Your task to perform on an android device: check data usage Image 0: 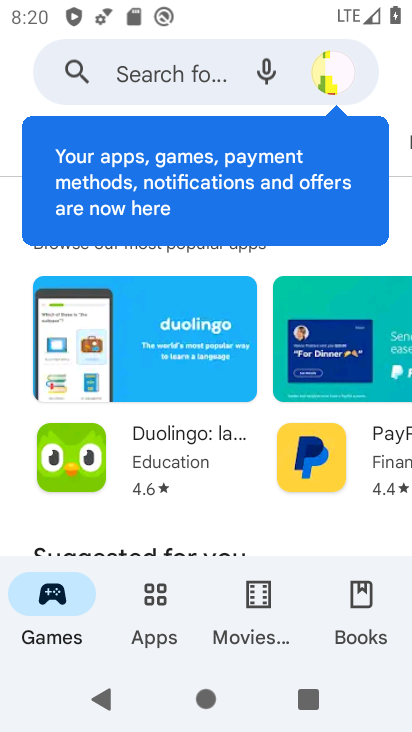
Step 0: press back button
Your task to perform on an android device: check data usage Image 1: 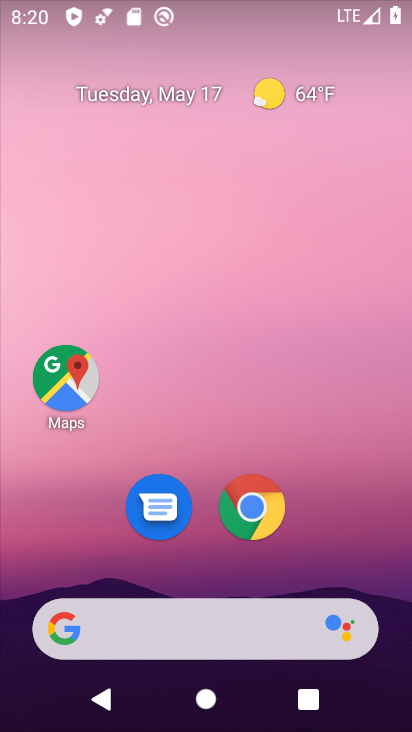
Step 1: drag from (332, 538) to (228, 87)
Your task to perform on an android device: check data usage Image 2: 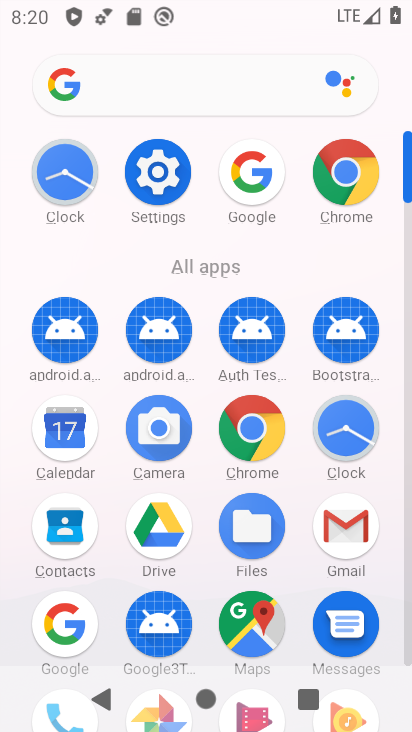
Step 2: click (159, 172)
Your task to perform on an android device: check data usage Image 3: 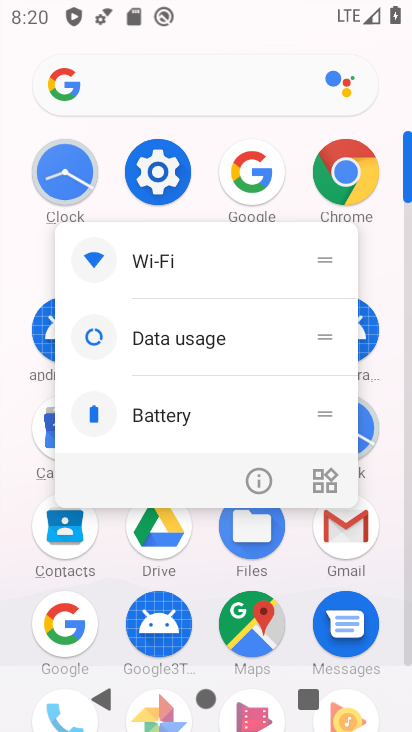
Step 3: click (159, 340)
Your task to perform on an android device: check data usage Image 4: 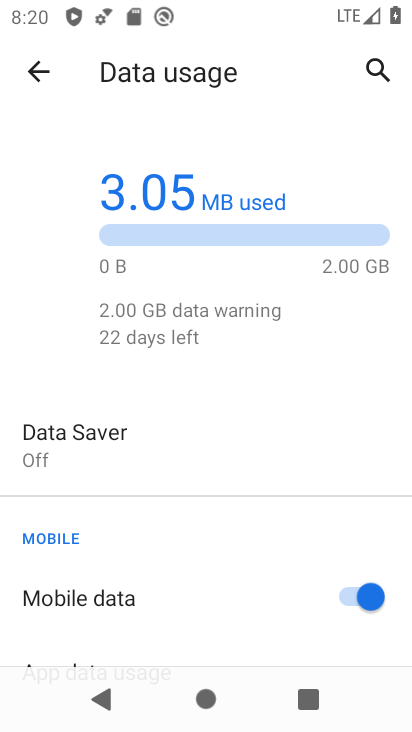
Step 4: task complete